Your task to perform on an android device: Open the web browser Image 0: 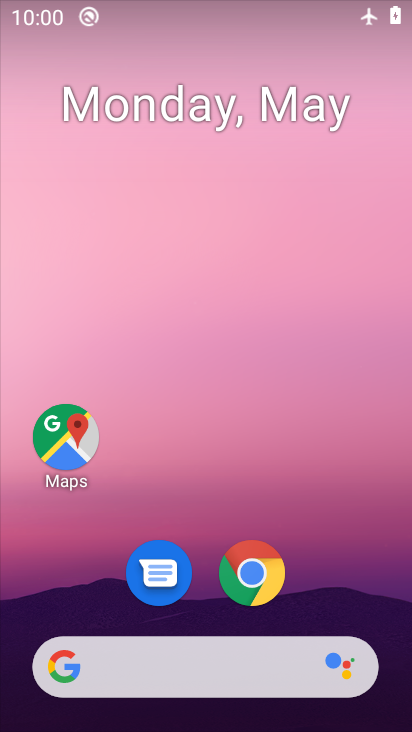
Step 0: click (249, 581)
Your task to perform on an android device: Open the web browser Image 1: 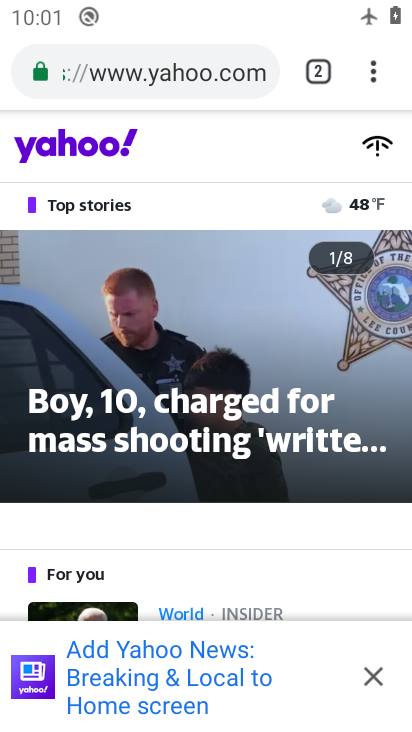
Step 1: task complete